Your task to perform on an android device: change your default location settings in chrome Image 0: 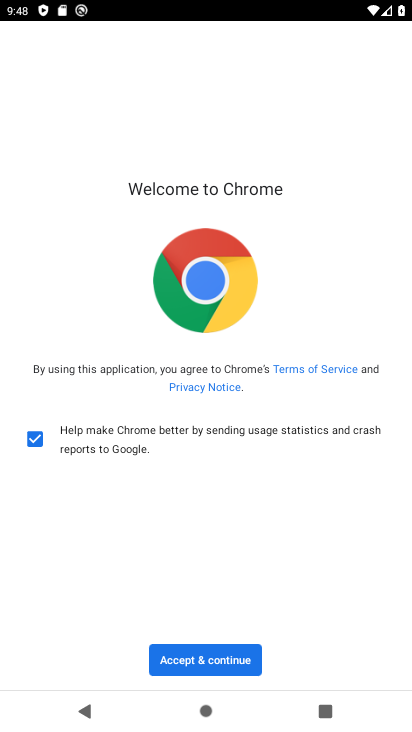
Step 0: click (177, 662)
Your task to perform on an android device: change your default location settings in chrome Image 1: 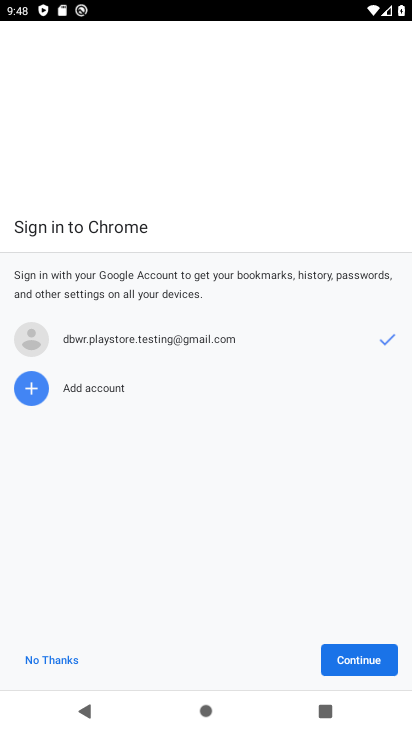
Step 1: click (366, 660)
Your task to perform on an android device: change your default location settings in chrome Image 2: 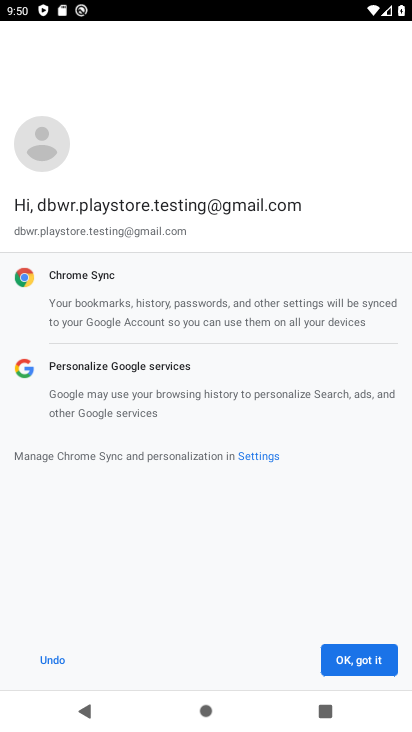
Step 2: click (346, 661)
Your task to perform on an android device: change your default location settings in chrome Image 3: 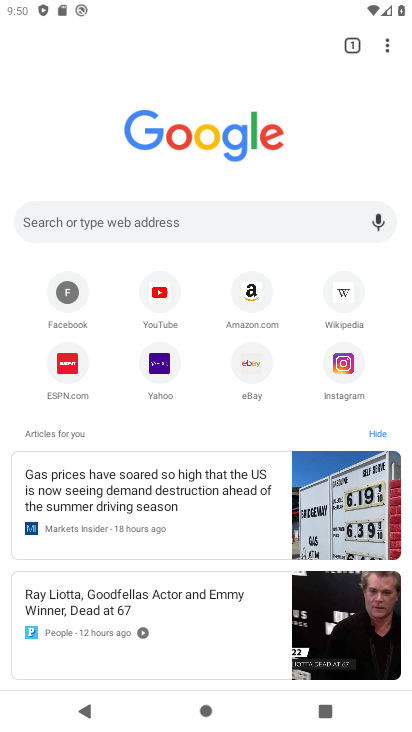
Step 3: click (387, 39)
Your task to perform on an android device: change your default location settings in chrome Image 4: 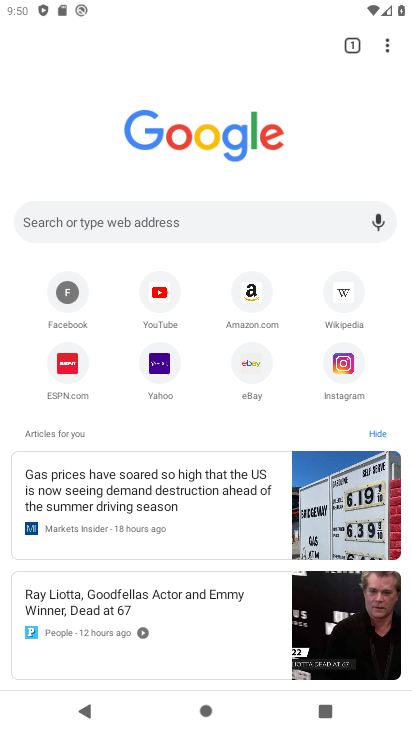
Step 4: click (392, 48)
Your task to perform on an android device: change your default location settings in chrome Image 5: 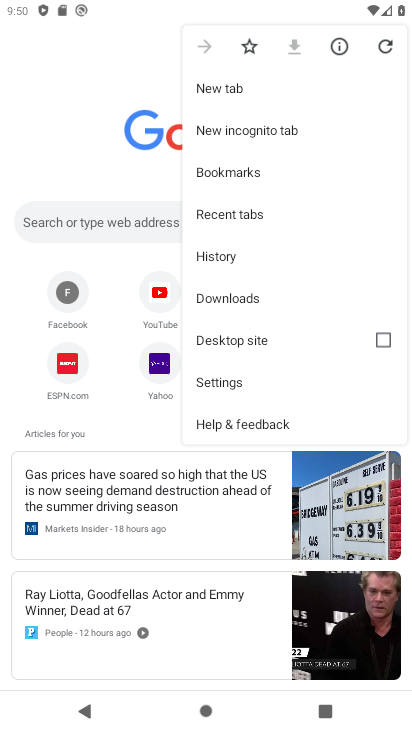
Step 5: click (223, 375)
Your task to perform on an android device: change your default location settings in chrome Image 6: 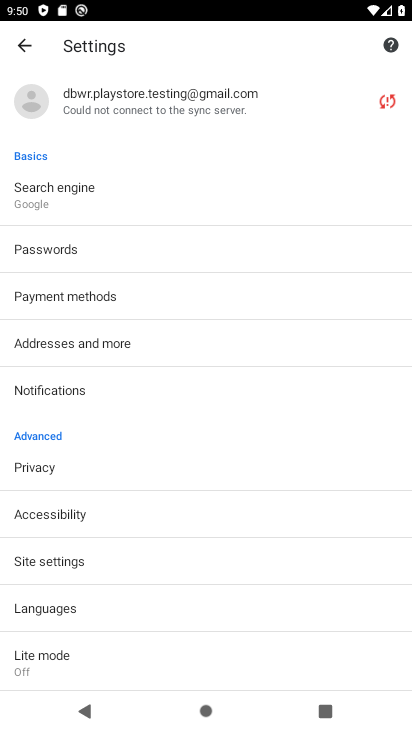
Step 6: click (42, 560)
Your task to perform on an android device: change your default location settings in chrome Image 7: 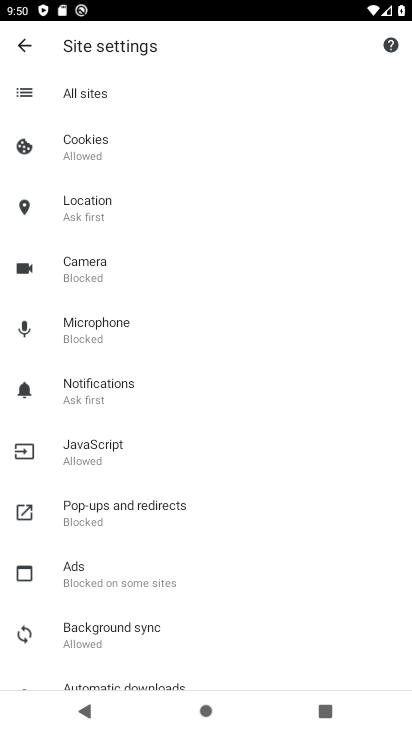
Step 7: click (85, 209)
Your task to perform on an android device: change your default location settings in chrome Image 8: 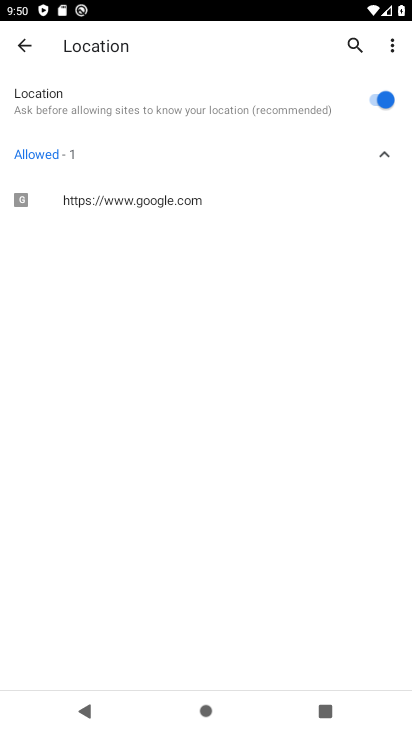
Step 8: click (373, 101)
Your task to perform on an android device: change your default location settings in chrome Image 9: 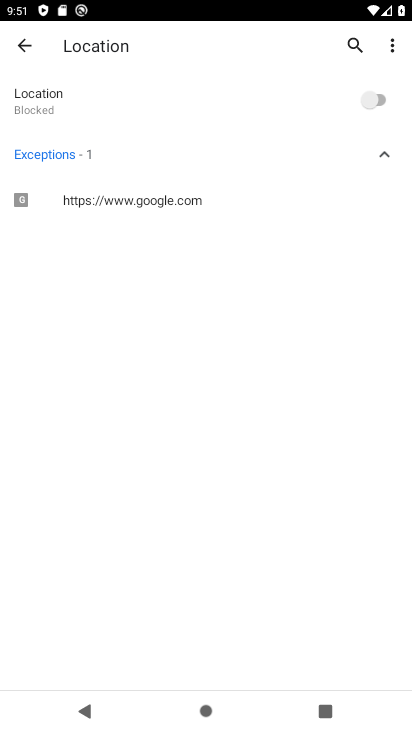
Step 9: task complete